Your task to perform on an android device: change alarm snooze length Image 0: 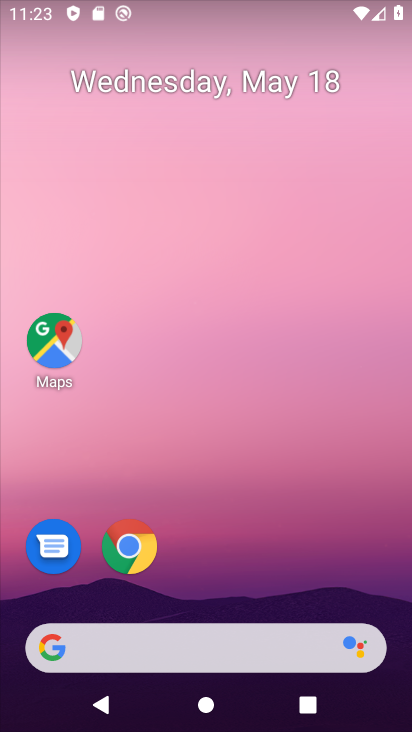
Step 0: drag from (392, 626) to (401, 213)
Your task to perform on an android device: change alarm snooze length Image 1: 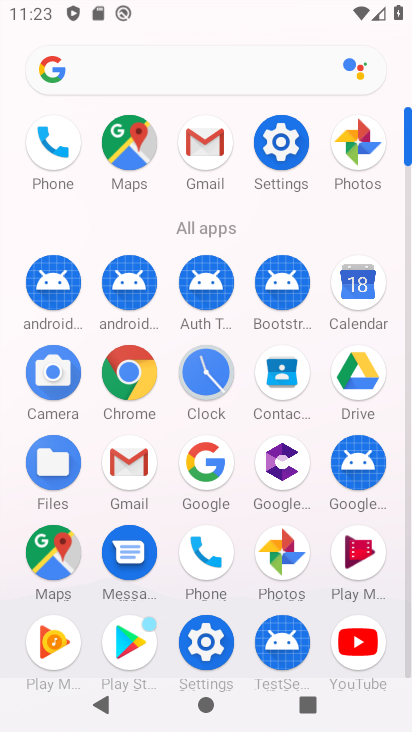
Step 1: click (274, 152)
Your task to perform on an android device: change alarm snooze length Image 2: 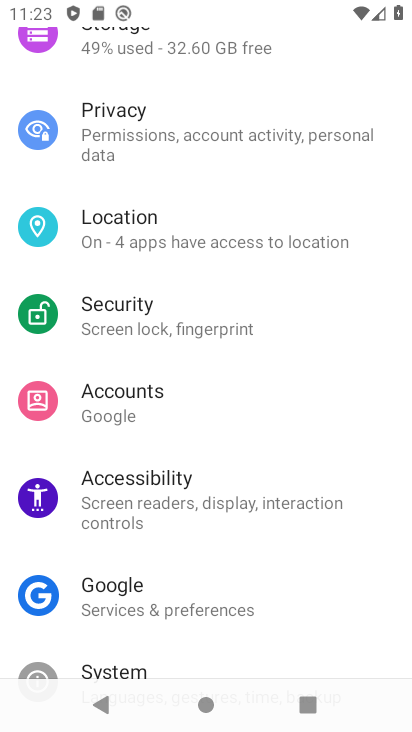
Step 2: press home button
Your task to perform on an android device: change alarm snooze length Image 3: 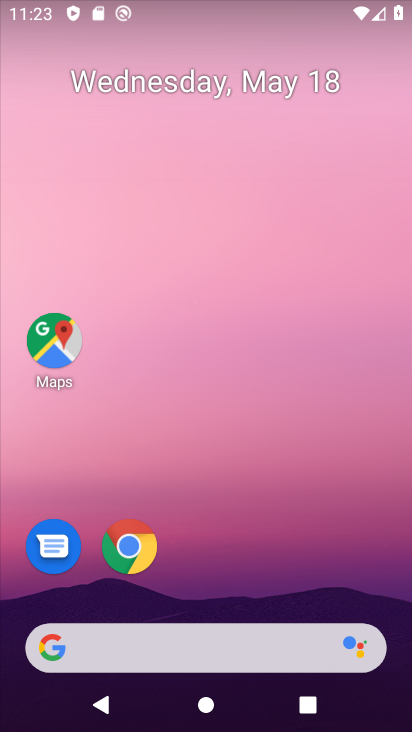
Step 3: drag from (401, 648) to (407, 181)
Your task to perform on an android device: change alarm snooze length Image 4: 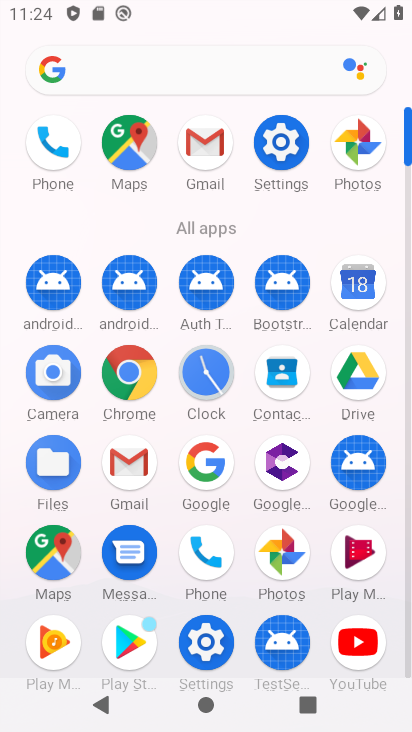
Step 4: click (211, 371)
Your task to perform on an android device: change alarm snooze length Image 5: 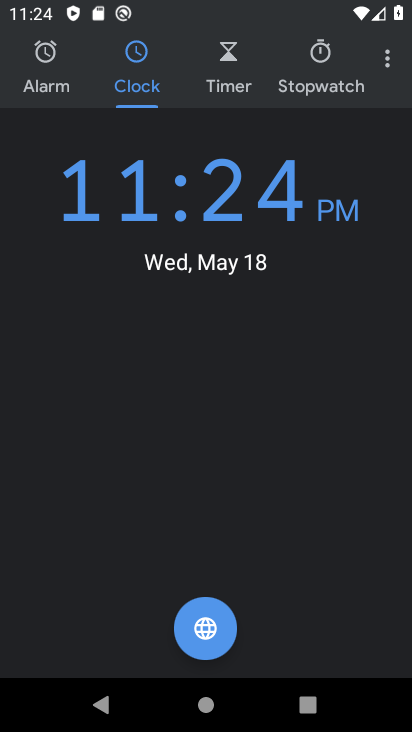
Step 5: click (388, 63)
Your task to perform on an android device: change alarm snooze length Image 6: 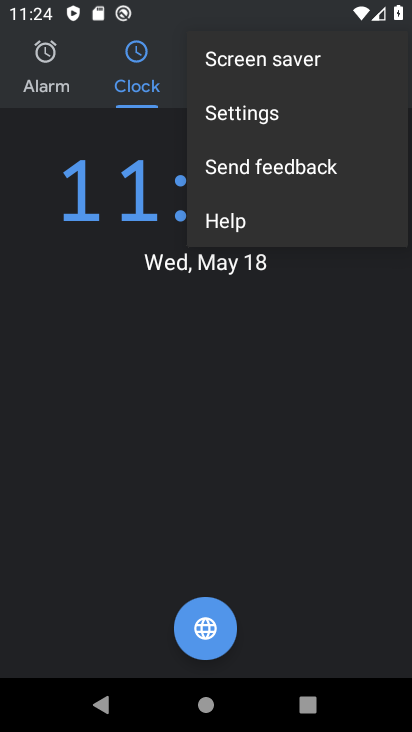
Step 6: click (227, 107)
Your task to perform on an android device: change alarm snooze length Image 7: 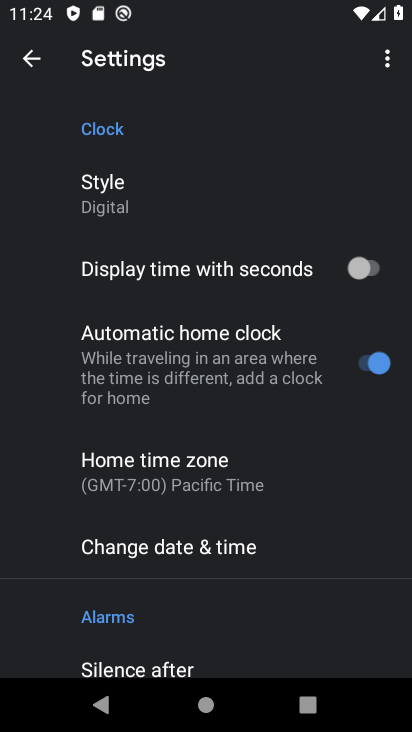
Step 7: drag from (261, 616) to (264, 315)
Your task to perform on an android device: change alarm snooze length Image 8: 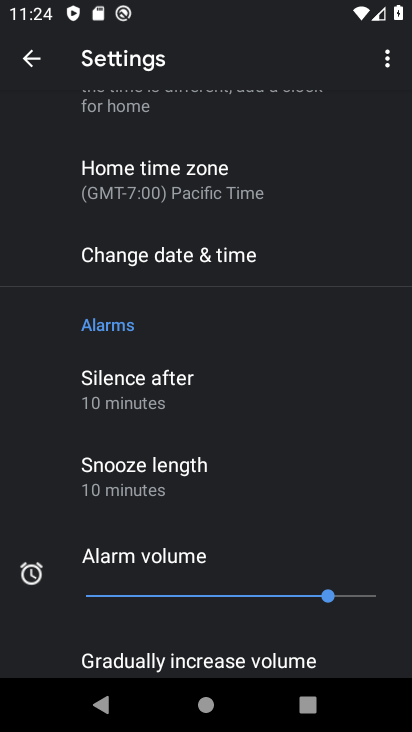
Step 8: click (130, 474)
Your task to perform on an android device: change alarm snooze length Image 9: 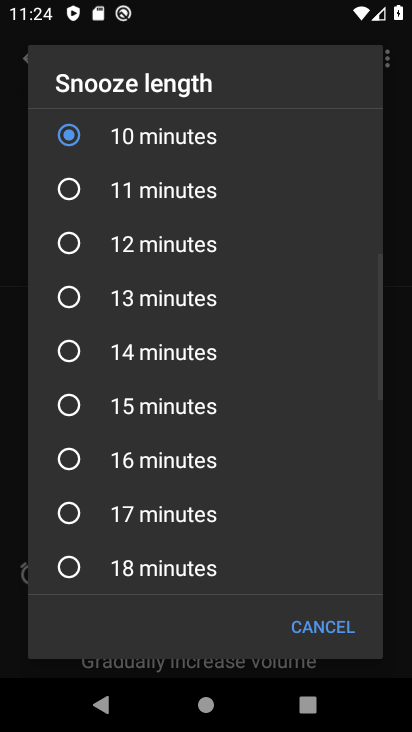
Step 9: click (63, 294)
Your task to perform on an android device: change alarm snooze length Image 10: 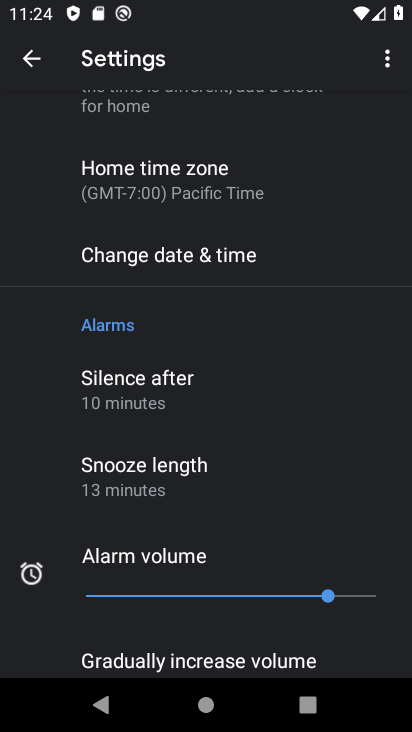
Step 10: task complete